Your task to perform on an android device: Open Youtube and go to the subscriptions tab Image 0: 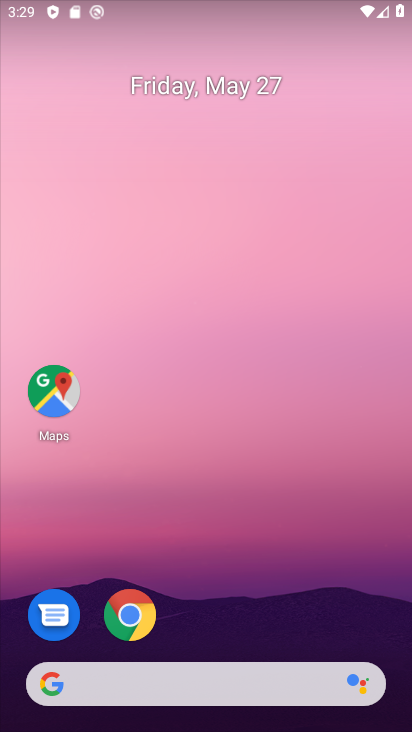
Step 0: drag from (117, 712) to (42, 10)
Your task to perform on an android device: Open Youtube and go to the subscriptions tab Image 1: 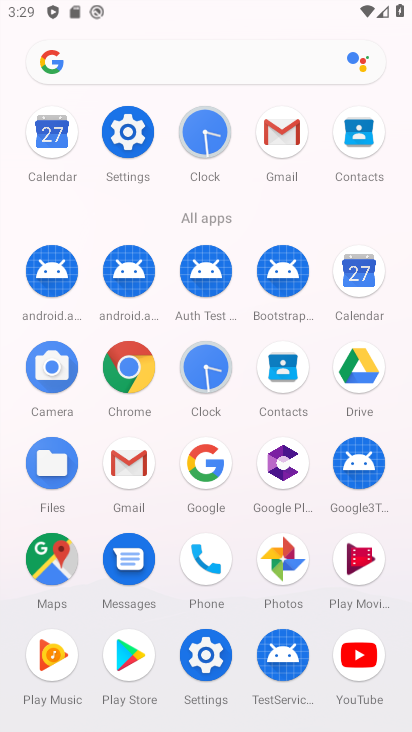
Step 1: click (371, 669)
Your task to perform on an android device: Open Youtube and go to the subscriptions tab Image 2: 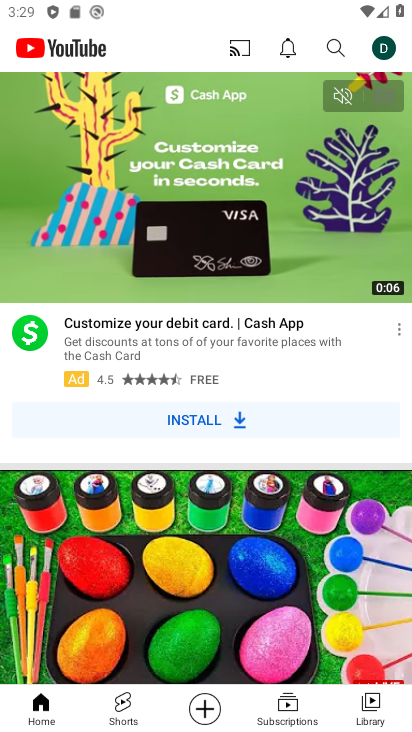
Step 2: click (295, 721)
Your task to perform on an android device: Open Youtube and go to the subscriptions tab Image 3: 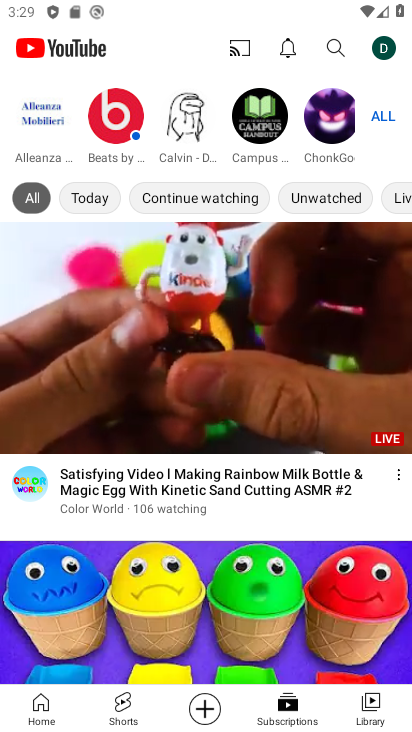
Step 3: task complete